Your task to perform on an android device: toggle javascript in the chrome app Image 0: 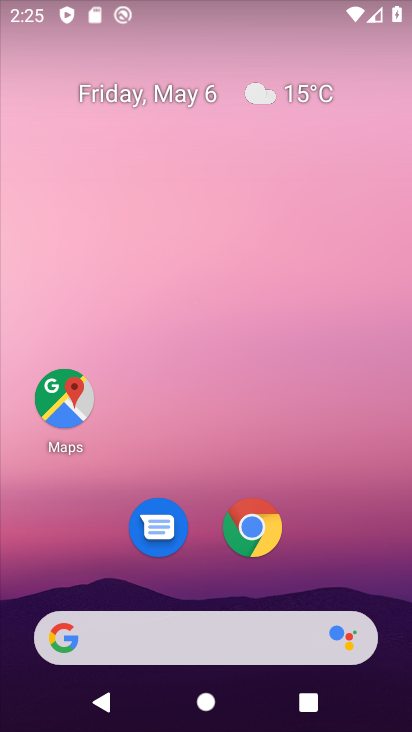
Step 0: click (256, 524)
Your task to perform on an android device: toggle javascript in the chrome app Image 1: 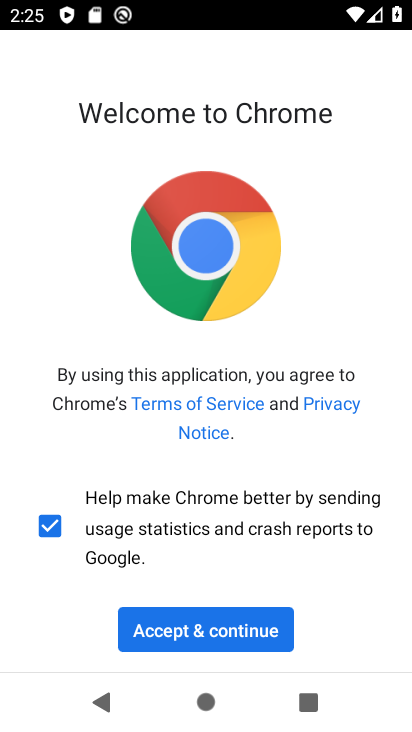
Step 1: click (248, 617)
Your task to perform on an android device: toggle javascript in the chrome app Image 2: 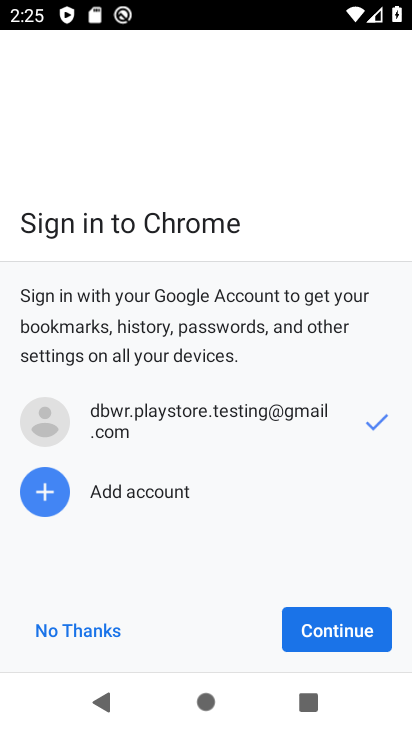
Step 2: click (322, 639)
Your task to perform on an android device: toggle javascript in the chrome app Image 3: 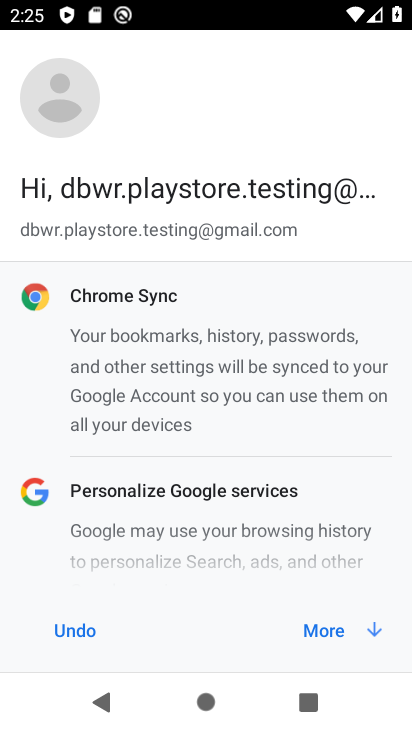
Step 3: click (312, 637)
Your task to perform on an android device: toggle javascript in the chrome app Image 4: 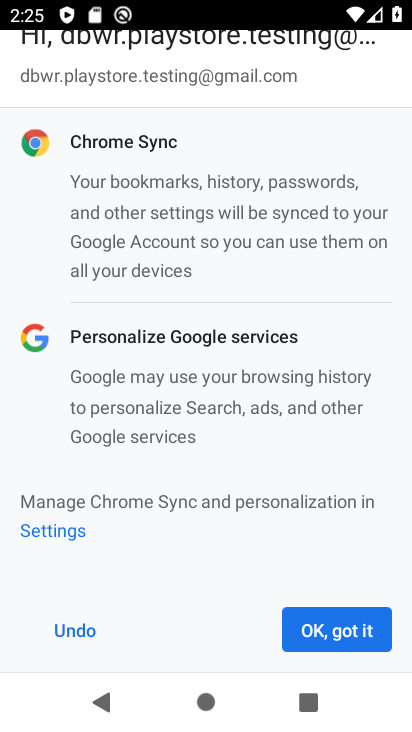
Step 4: click (307, 623)
Your task to perform on an android device: toggle javascript in the chrome app Image 5: 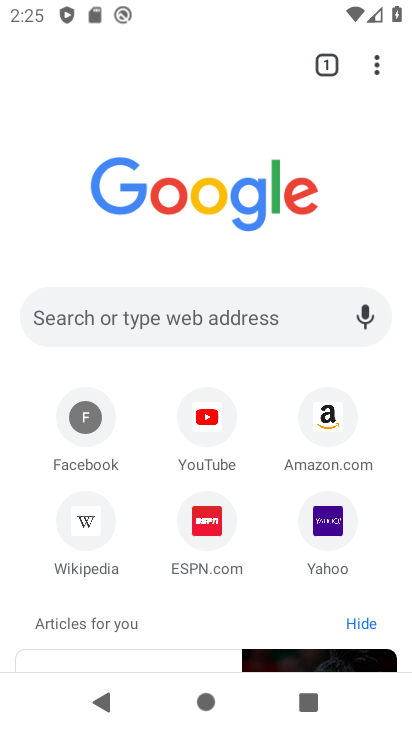
Step 5: click (378, 67)
Your task to perform on an android device: toggle javascript in the chrome app Image 6: 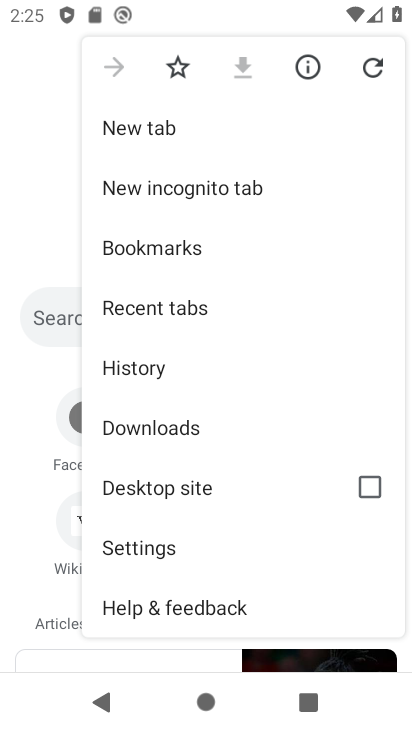
Step 6: click (137, 552)
Your task to perform on an android device: toggle javascript in the chrome app Image 7: 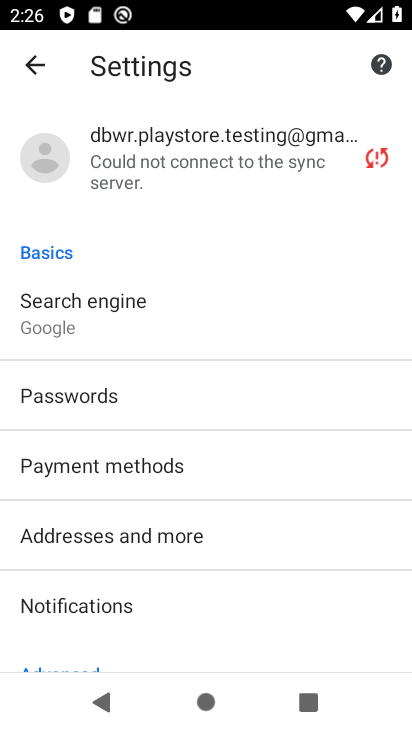
Step 7: drag from (76, 599) to (89, 317)
Your task to perform on an android device: toggle javascript in the chrome app Image 8: 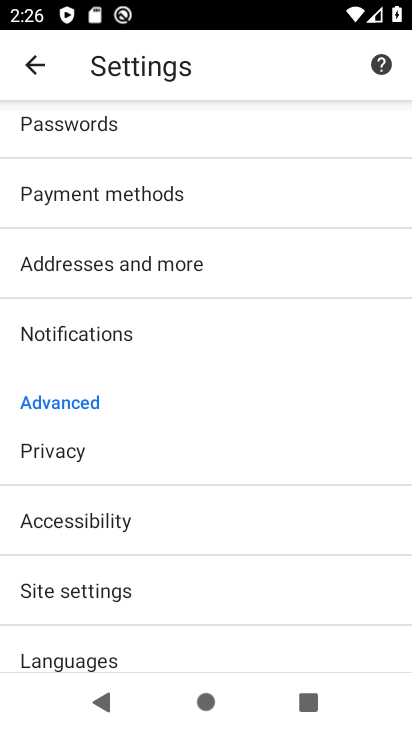
Step 8: click (115, 593)
Your task to perform on an android device: toggle javascript in the chrome app Image 9: 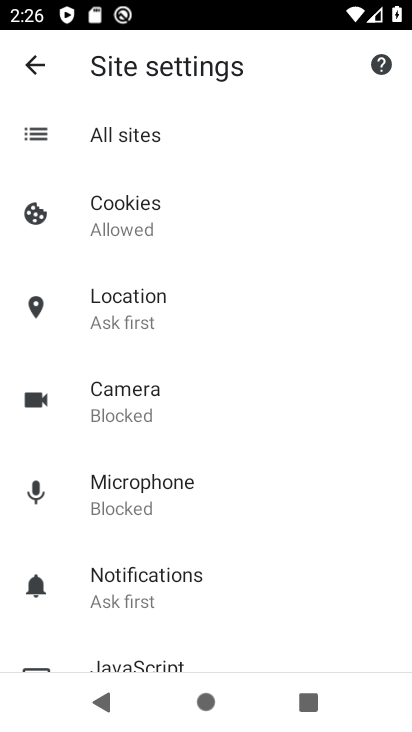
Step 9: drag from (176, 590) to (221, 334)
Your task to perform on an android device: toggle javascript in the chrome app Image 10: 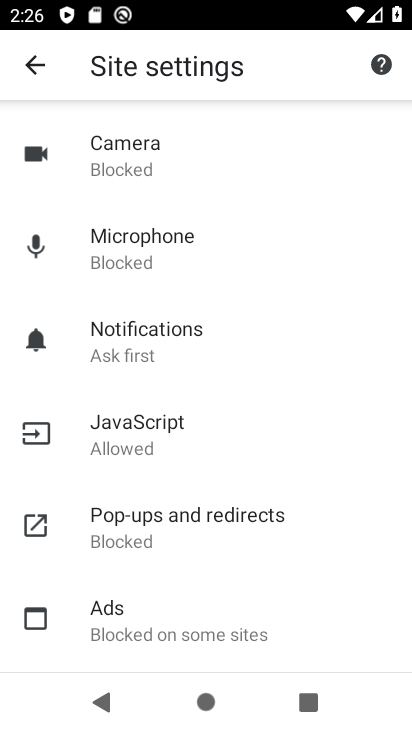
Step 10: click (146, 453)
Your task to perform on an android device: toggle javascript in the chrome app Image 11: 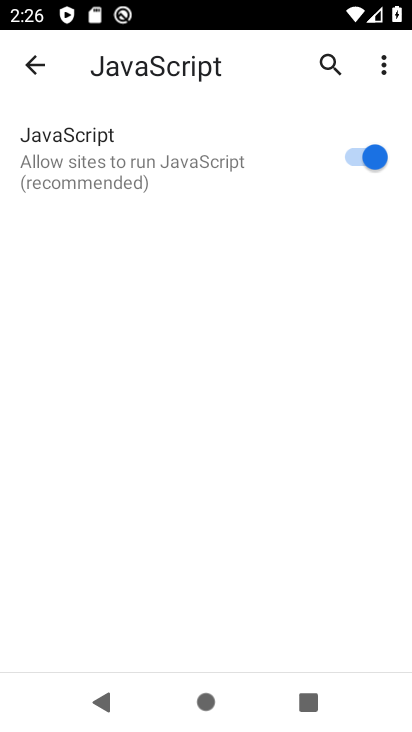
Step 11: click (356, 159)
Your task to perform on an android device: toggle javascript in the chrome app Image 12: 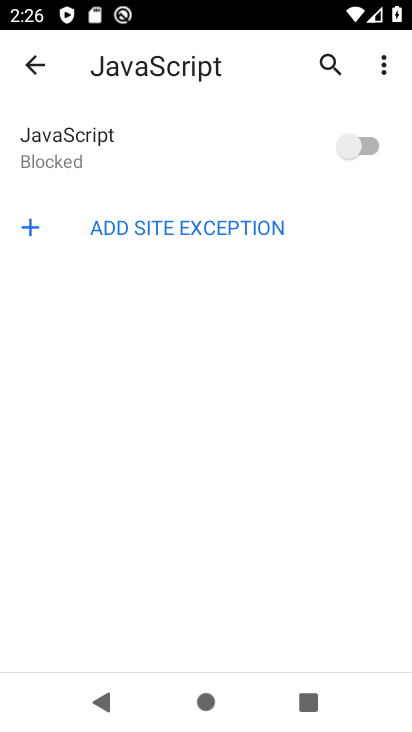
Step 12: task complete